Your task to perform on an android device: see tabs open on other devices in the chrome app Image 0: 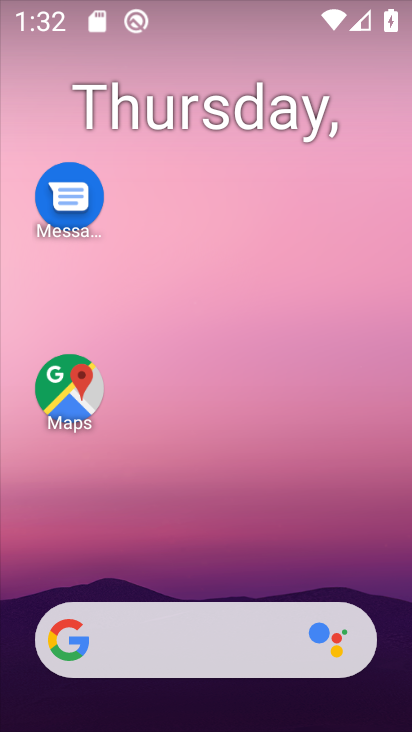
Step 0: click (60, 375)
Your task to perform on an android device: see tabs open on other devices in the chrome app Image 1: 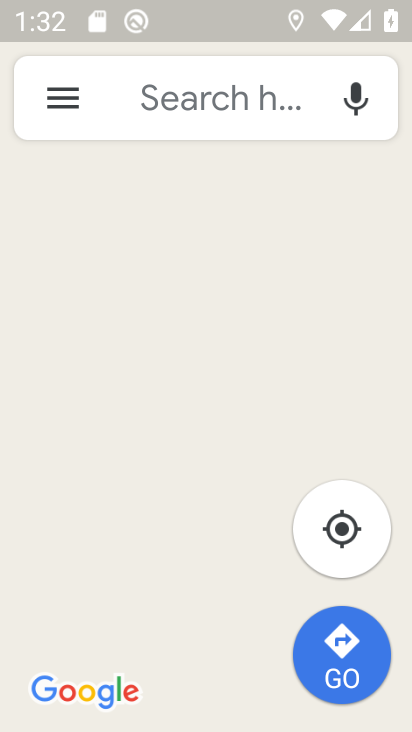
Step 1: click (165, 97)
Your task to perform on an android device: see tabs open on other devices in the chrome app Image 2: 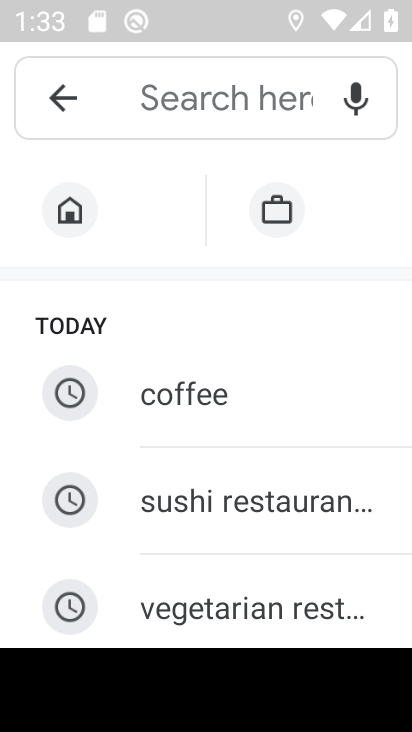
Step 2: press home button
Your task to perform on an android device: see tabs open on other devices in the chrome app Image 3: 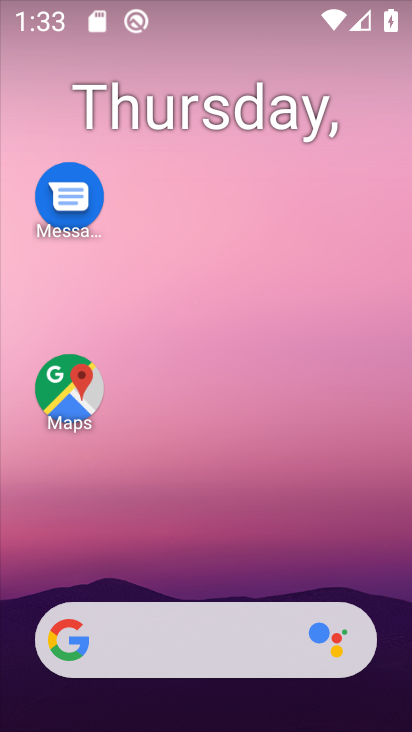
Step 3: drag from (174, 585) to (218, 235)
Your task to perform on an android device: see tabs open on other devices in the chrome app Image 4: 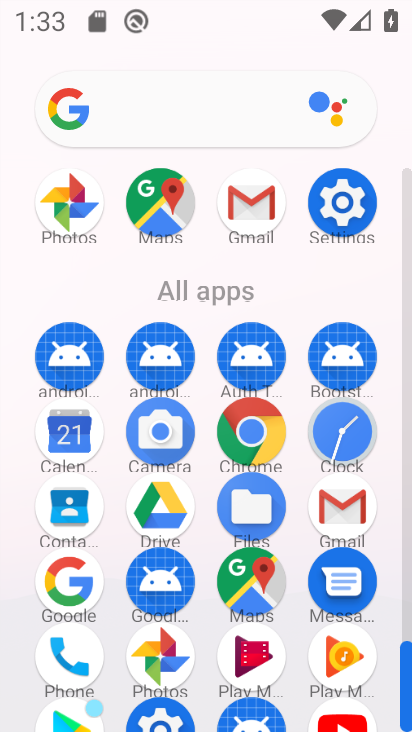
Step 4: click (249, 426)
Your task to perform on an android device: see tabs open on other devices in the chrome app Image 5: 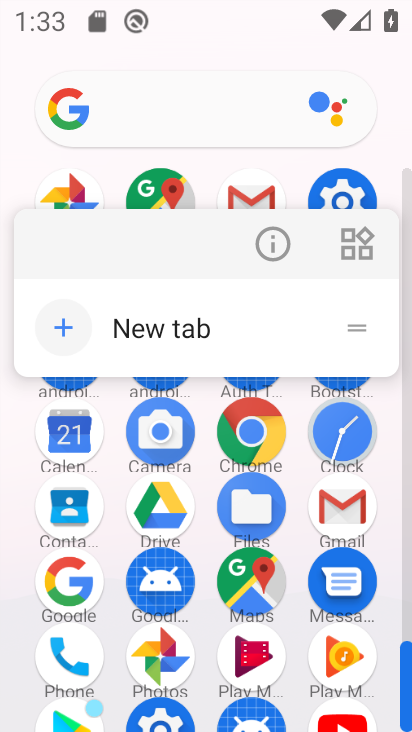
Step 5: click (271, 246)
Your task to perform on an android device: see tabs open on other devices in the chrome app Image 6: 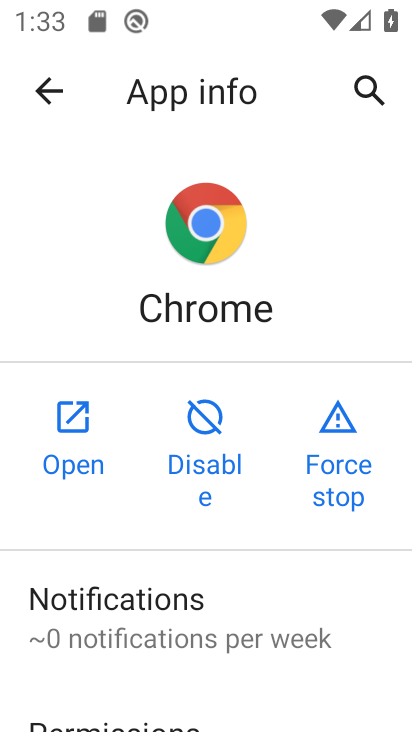
Step 6: click (68, 445)
Your task to perform on an android device: see tabs open on other devices in the chrome app Image 7: 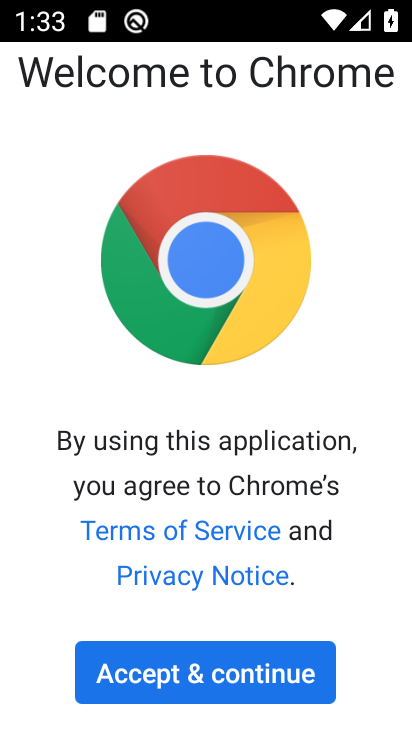
Step 7: click (243, 657)
Your task to perform on an android device: see tabs open on other devices in the chrome app Image 8: 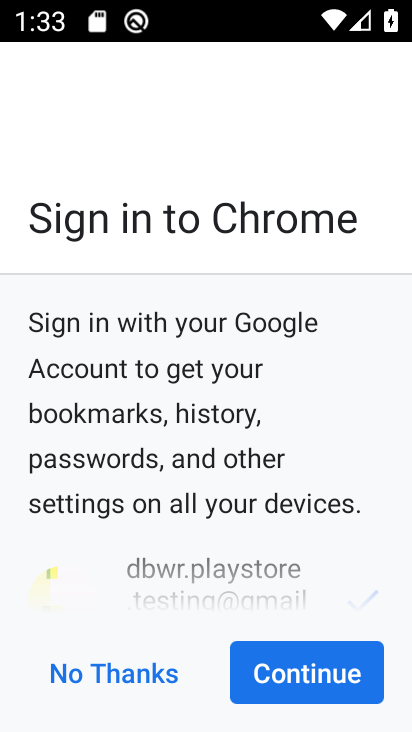
Step 8: click (309, 657)
Your task to perform on an android device: see tabs open on other devices in the chrome app Image 9: 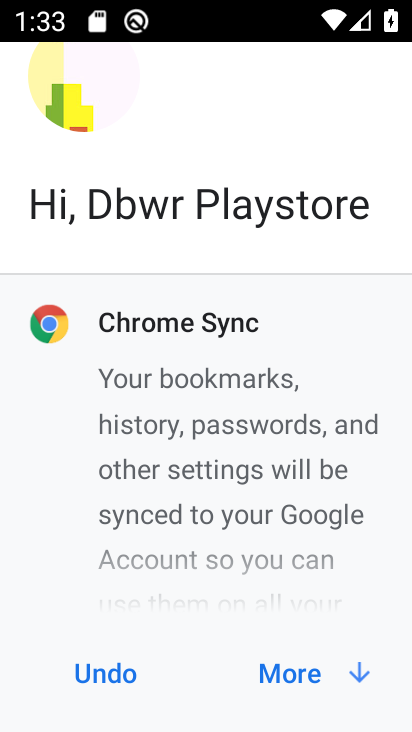
Step 9: click (291, 668)
Your task to perform on an android device: see tabs open on other devices in the chrome app Image 10: 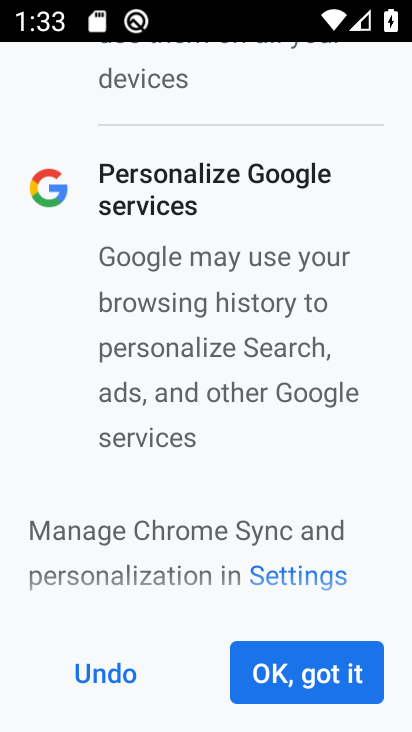
Step 10: click (300, 672)
Your task to perform on an android device: see tabs open on other devices in the chrome app Image 11: 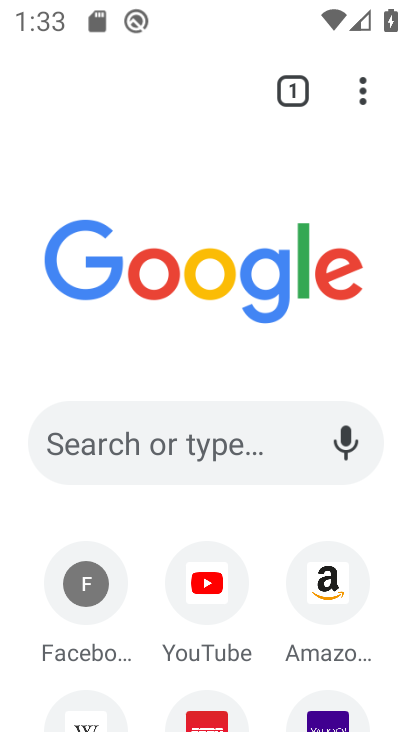
Step 11: click (299, 86)
Your task to perform on an android device: see tabs open on other devices in the chrome app Image 12: 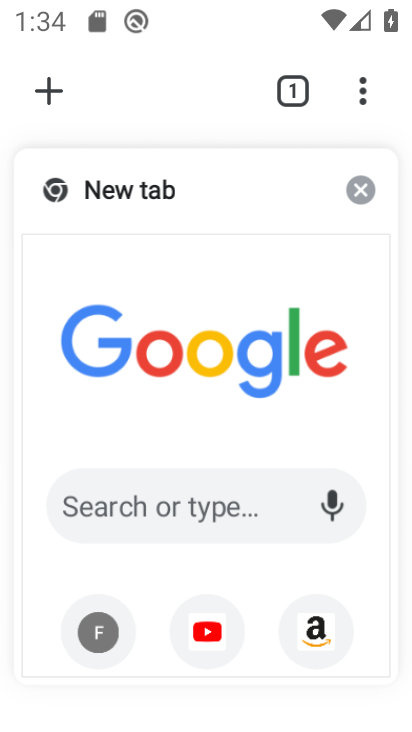
Step 12: task complete